Your task to perform on an android device: Open calendar and show me the fourth week of next month Image 0: 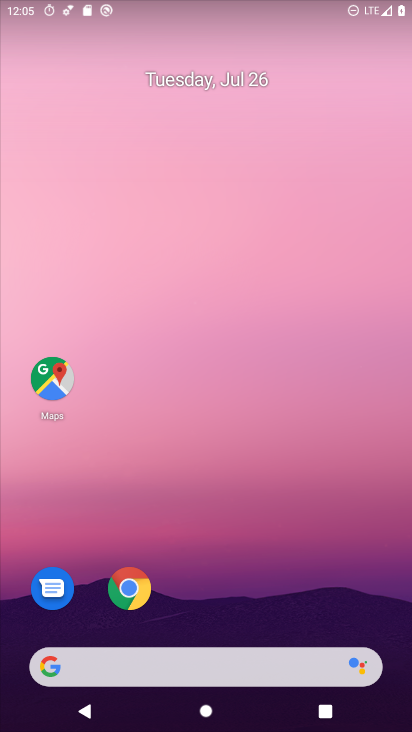
Step 0: drag from (23, 585) to (208, 71)
Your task to perform on an android device: Open calendar and show me the fourth week of next month Image 1: 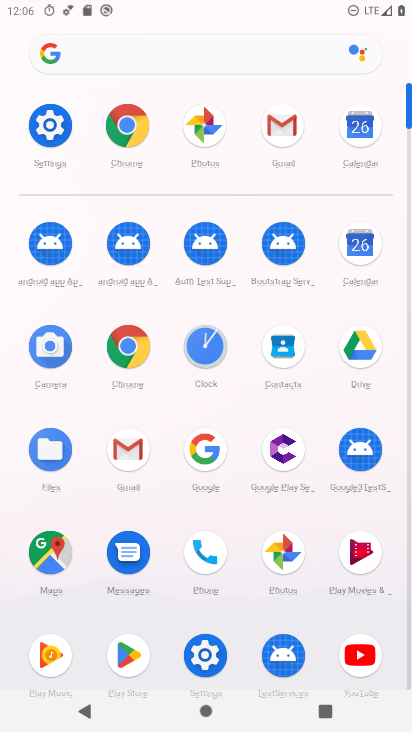
Step 1: click (362, 232)
Your task to perform on an android device: Open calendar and show me the fourth week of next month Image 2: 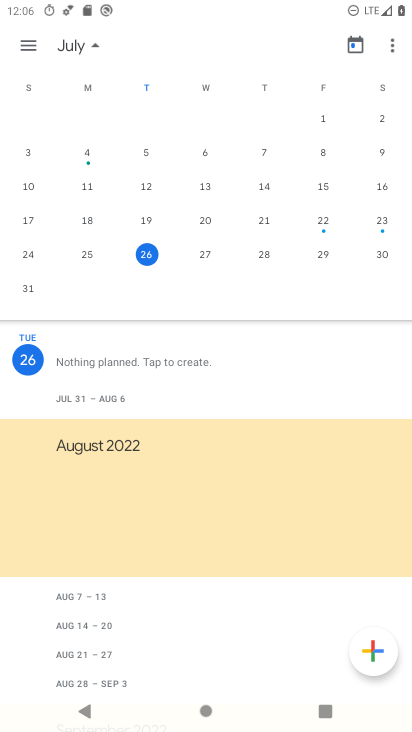
Step 2: drag from (257, 214) to (70, 140)
Your task to perform on an android device: Open calendar and show me the fourth week of next month Image 3: 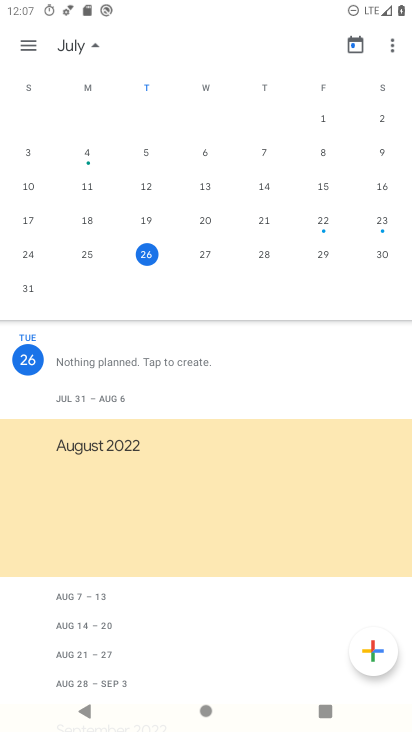
Step 3: click (399, 190)
Your task to perform on an android device: Open calendar and show me the fourth week of next month Image 4: 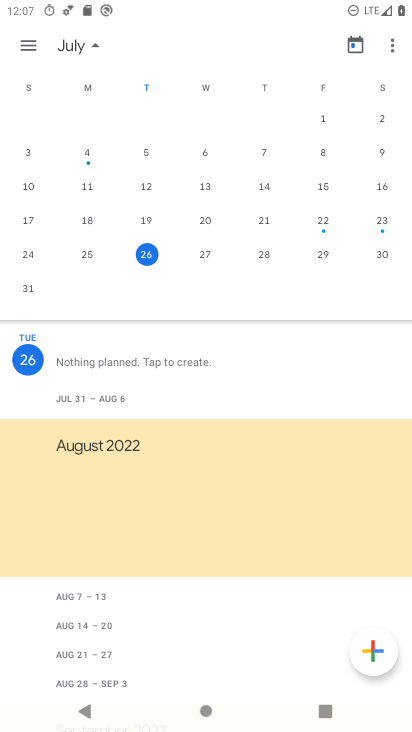
Step 4: drag from (400, 205) to (21, 115)
Your task to perform on an android device: Open calendar and show me the fourth week of next month Image 5: 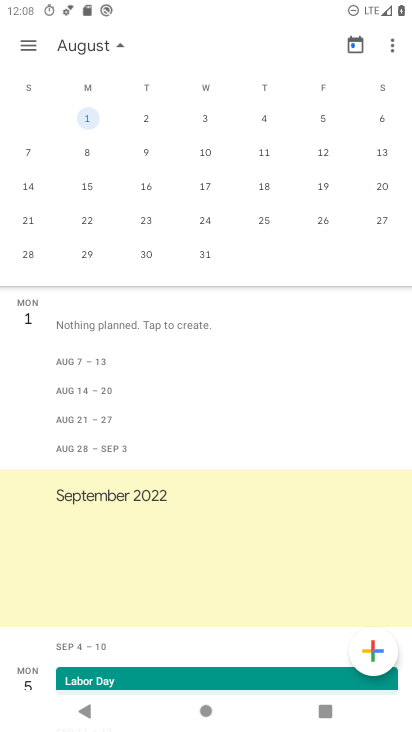
Step 5: click (90, 148)
Your task to perform on an android device: Open calendar and show me the fourth week of next month Image 6: 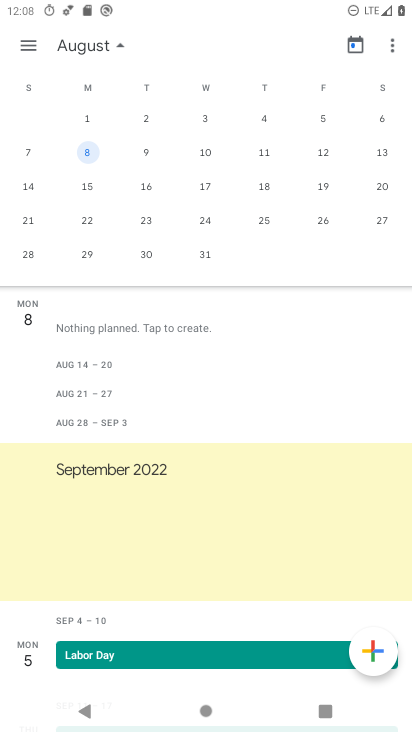
Step 6: click (84, 179)
Your task to perform on an android device: Open calendar and show me the fourth week of next month Image 7: 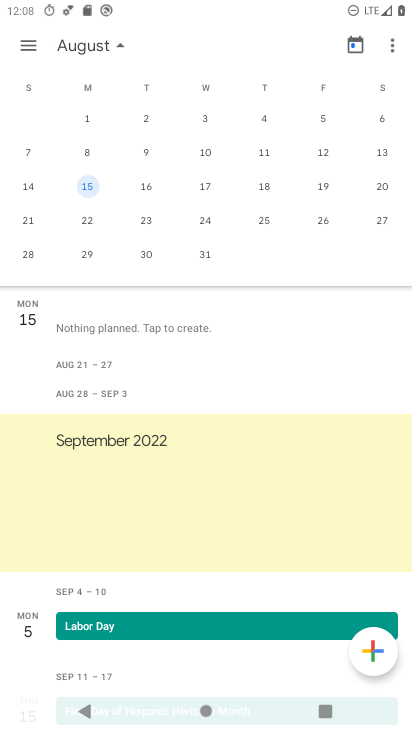
Step 7: click (95, 222)
Your task to perform on an android device: Open calendar and show me the fourth week of next month Image 8: 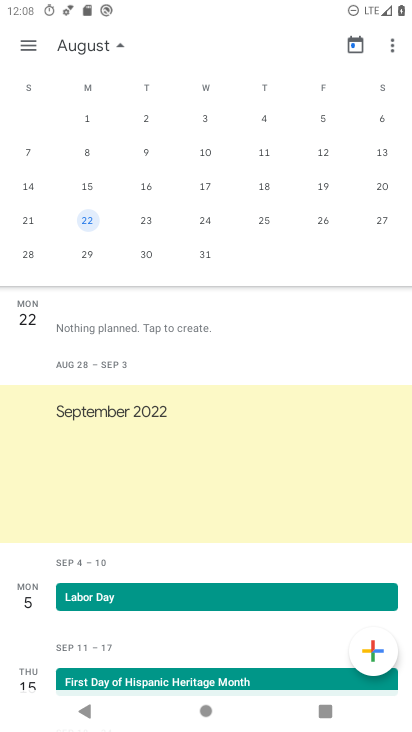
Step 8: task complete